Your task to perform on an android device: turn on translation in the chrome app Image 0: 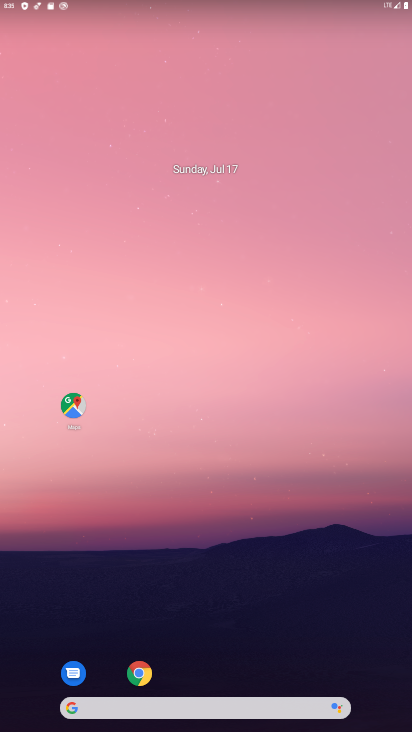
Step 0: click (146, 678)
Your task to perform on an android device: turn on translation in the chrome app Image 1: 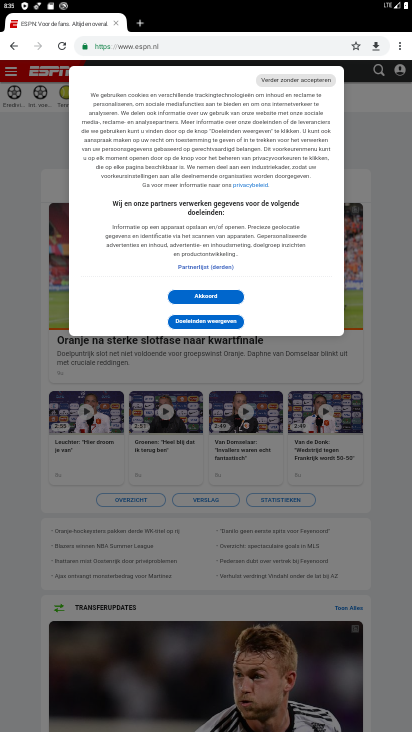
Step 1: click (261, 469)
Your task to perform on an android device: turn on translation in the chrome app Image 2: 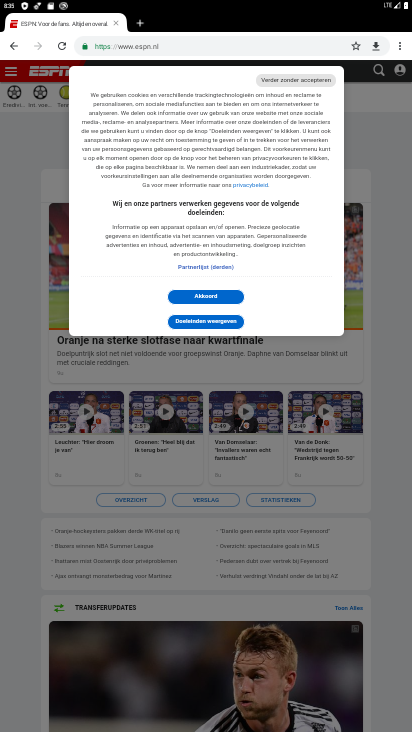
Step 2: click (404, 46)
Your task to perform on an android device: turn on translation in the chrome app Image 3: 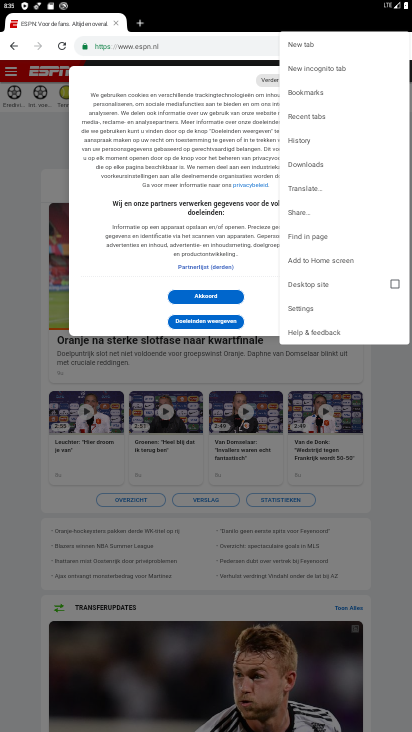
Step 3: click (333, 312)
Your task to perform on an android device: turn on translation in the chrome app Image 4: 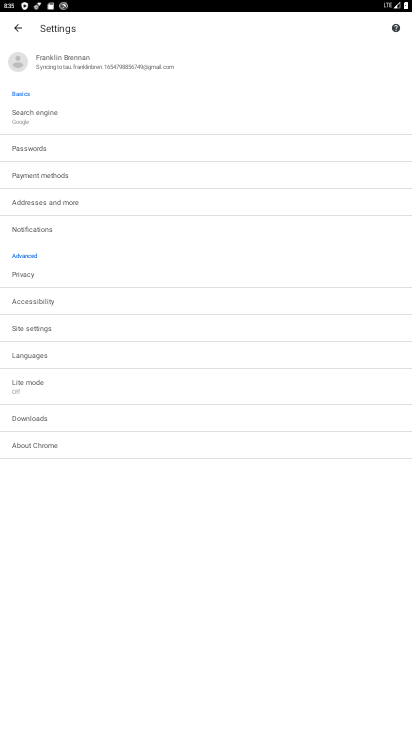
Step 4: click (64, 357)
Your task to perform on an android device: turn on translation in the chrome app Image 5: 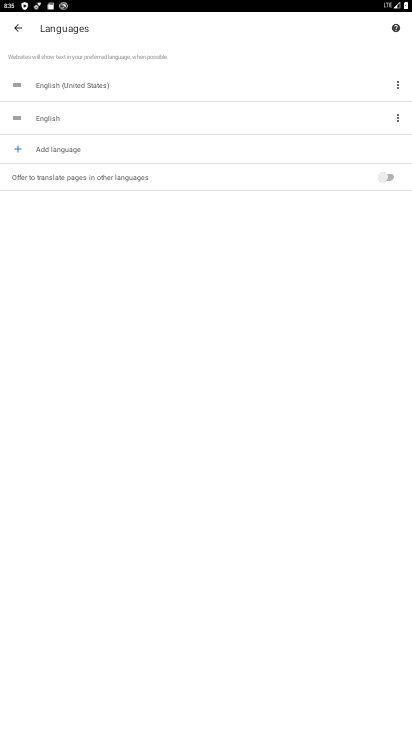
Step 5: click (394, 175)
Your task to perform on an android device: turn on translation in the chrome app Image 6: 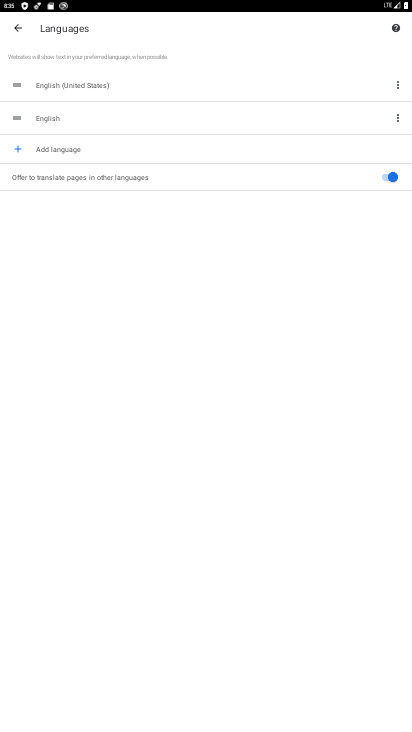
Step 6: task complete